Your task to perform on an android device: Search for top rated burger restaurants on Maps Image 0: 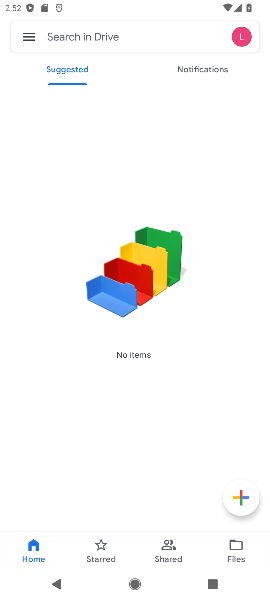
Step 0: press home button
Your task to perform on an android device: Search for top rated burger restaurants on Maps Image 1: 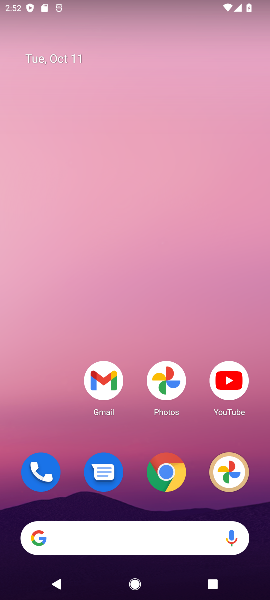
Step 1: drag from (139, 497) to (141, 16)
Your task to perform on an android device: Search for top rated burger restaurants on Maps Image 2: 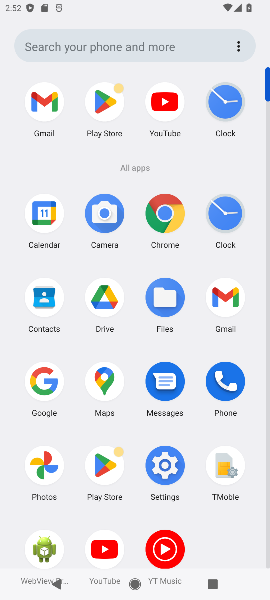
Step 2: click (108, 379)
Your task to perform on an android device: Search for top rated burger restaurants on Maps Image 3: 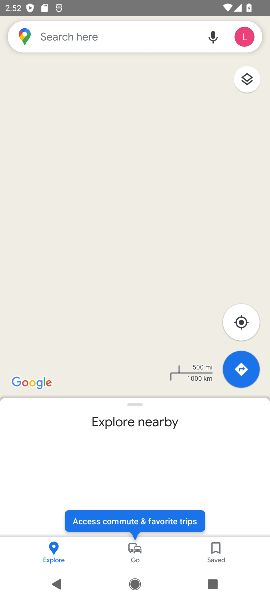
Step 3: click (76, 34)
Your task to perform on an android device: Search for top rated burger restaurants on Maps Image 4: 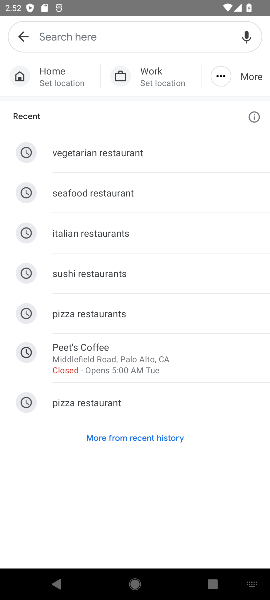
Step 4: type " top rated burger restaurants on Maps"
Your task to perform on an android device: Search for top rated burger restaurants on Maps Image 5: 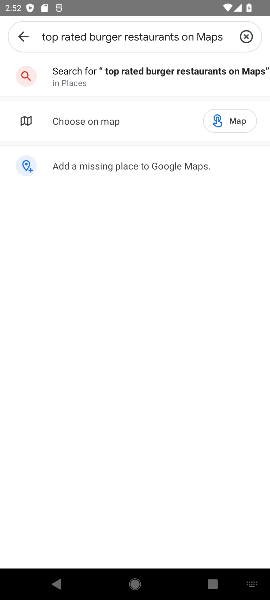
Step 5: click (190, 85)
Your task to perform on an android device: Search for top rated burger restaurants on Maps Image 6: 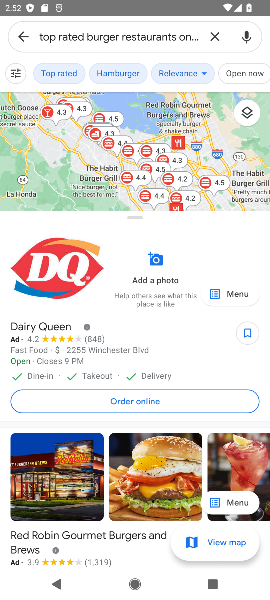
Step 6: task complete